Your task to perform on an android device: open the mobile data screen to see how much data has been used Image 0: 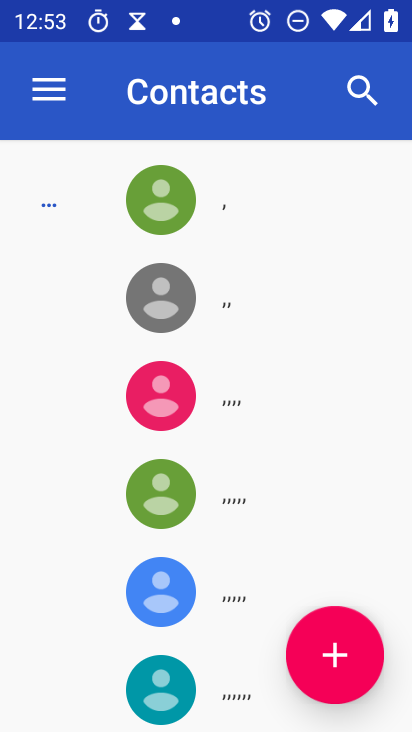
Step 0: press home button
Your task to perform on an android device: open the mobile data screen to see how much data has been used Image 1: 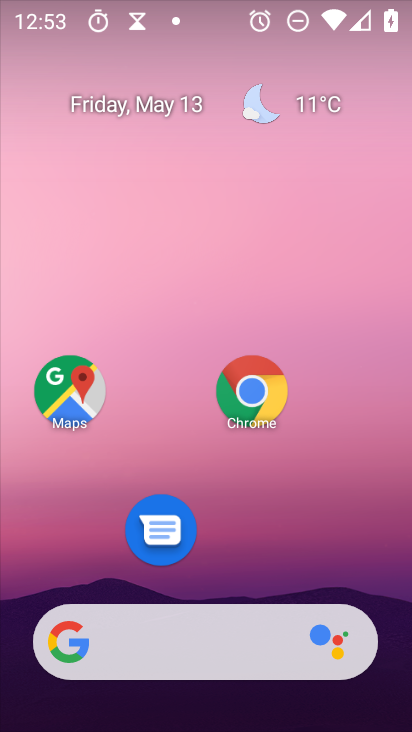
Step 1: drag from (157, 655) to (294, 217)
Your task to perform on an android device: open the mobile data screen to see how much data has been used Image 2: 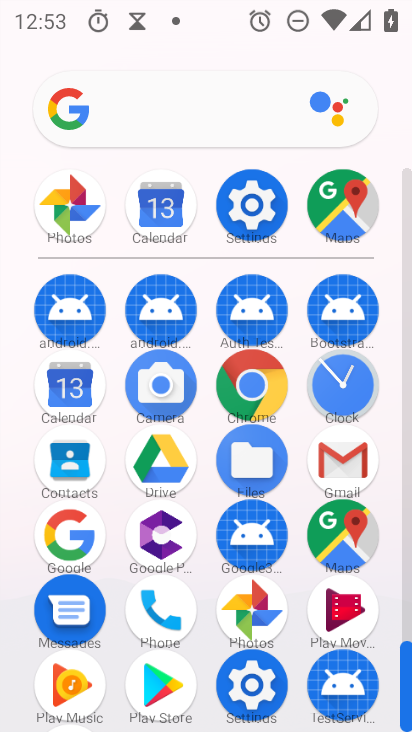
Step 2: click (253, 215)
Your task to perform on an android device: open the mobile data screen to see how much data has been used Image 3: 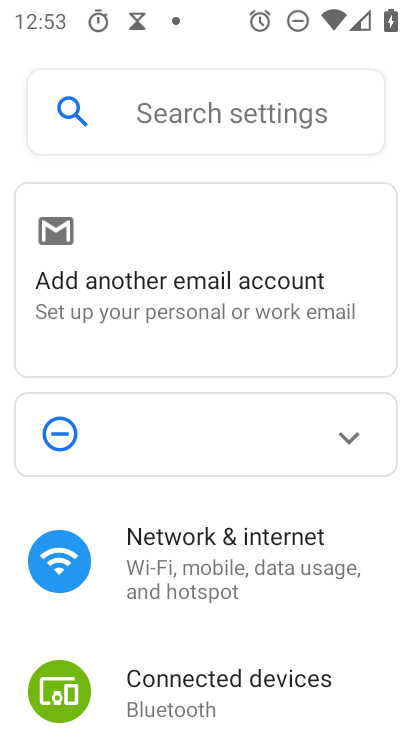
Step 3: drag from (187, 632) to (314, 238)
Your task to perform on an android device: open the mobile data screen to see how much data has been used Image 4: 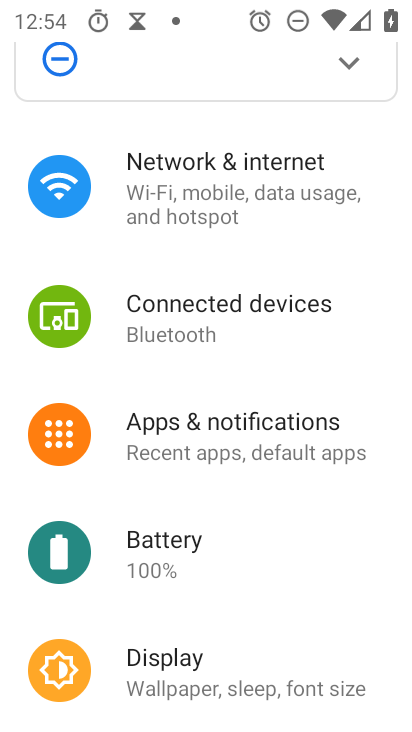
Step 4: click (205, 182)
Your task to perform on an android device: open the mobile data screen to see how much data has been used Image 5: 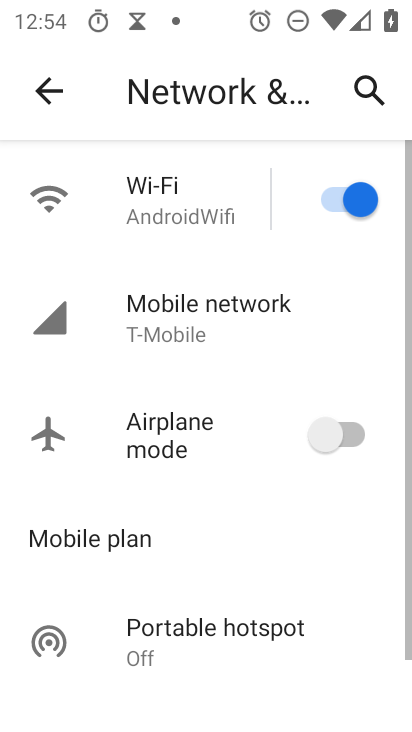
Step 5: click (179, 317)
Your task to perform on an android device: open the mobile data screen to see how much data has been used Image 6: 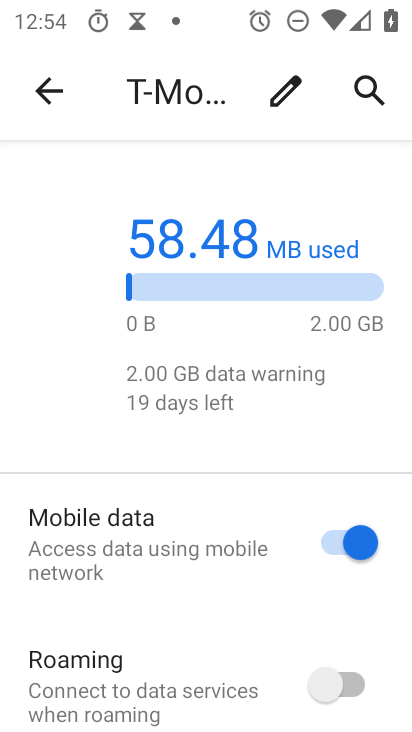
Step 6: task complete